Your task to perform on an android device: Do I have any events tomorrow? Image 0: 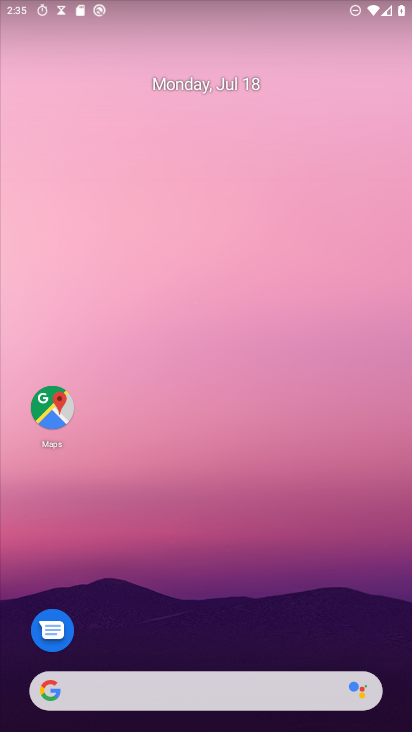
Step 0: drag from (150, 692) to (253, 4)
Your task to perform on an android device: Do I have any events tomorrow? Image 1: 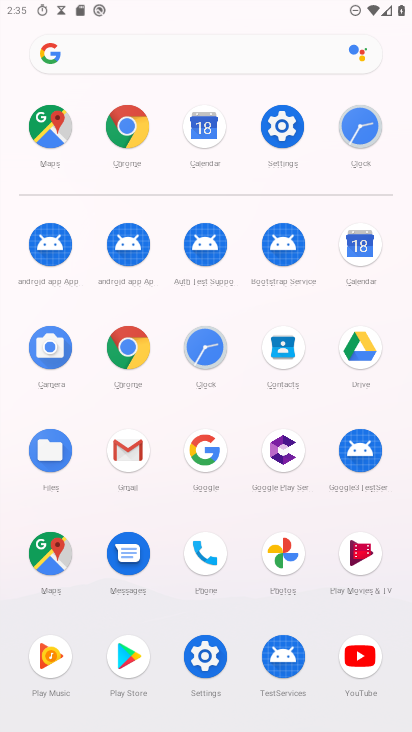
Step 1: click (131, 340)
Your task to perform on an android device: Do I have any events tomorrow? Image 2: 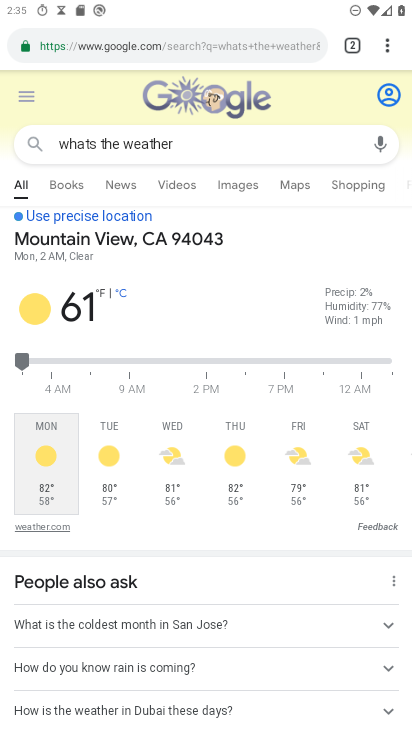
Step 2: press home button
Your task to perform on an android device: Do I have any events tomorrow? Image 3: 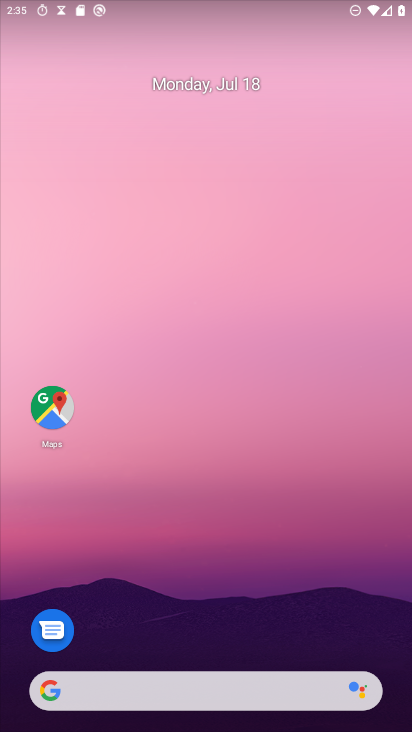
Step 3: drag from (284, 689) to (340, 63)
Your task to perform on an android device: Do I have any events tomorrow? Image 4: 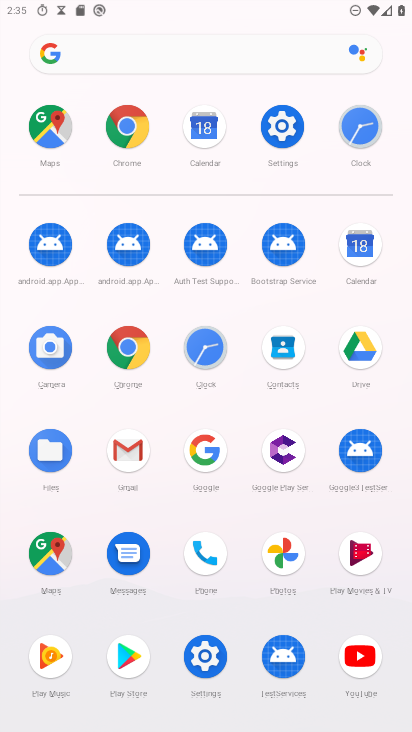
Step 4: click (362, 250)
Your task to perform on an android device: Do I have any events tomorrow? Image 5: 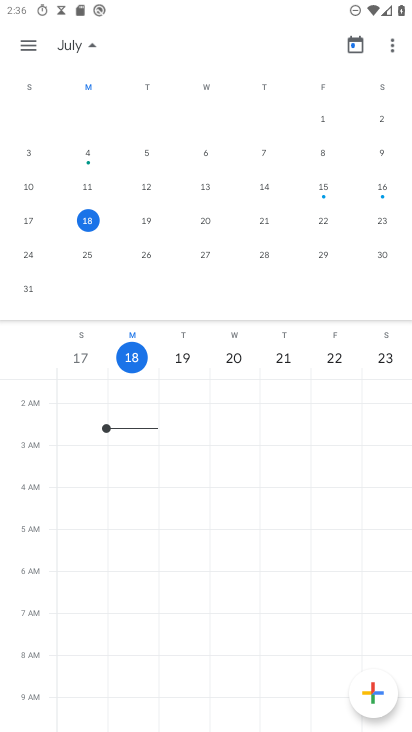
Step 5: click (144, 217)
Your task to perform on an android device: Do I have any events tomorrow? Image 6: 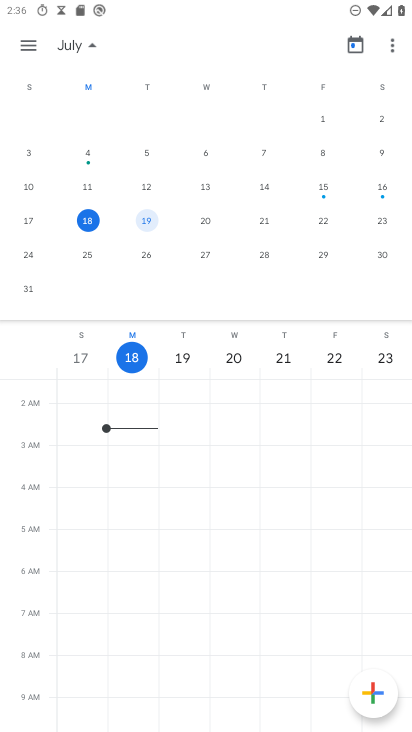
Step 6: task complete